Your task to perform on an android device: Open privacy settings Image 0: 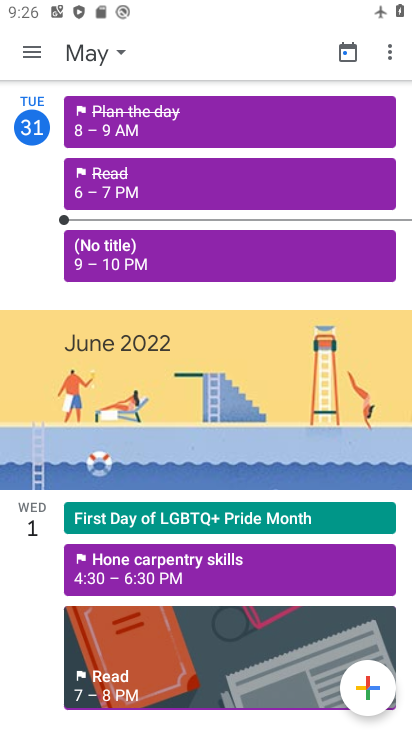
Step 0: press home button
Your task to perform on an android device: Open privacy settings Image 1: 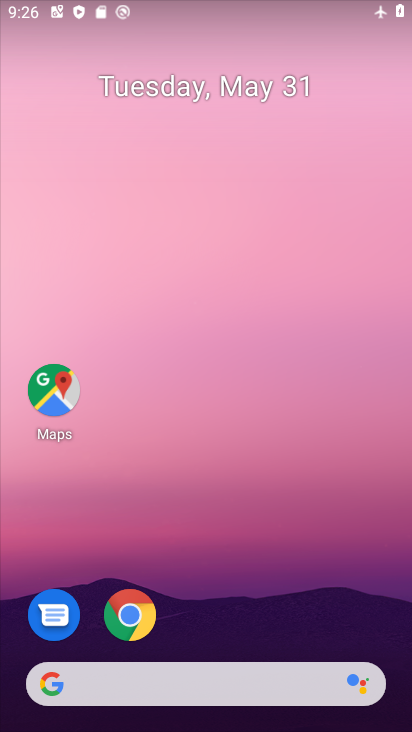
Step 1: drag from (371, 638) to (341, 62)
Your task to perform on an android device: Open privacy settings Image 2: 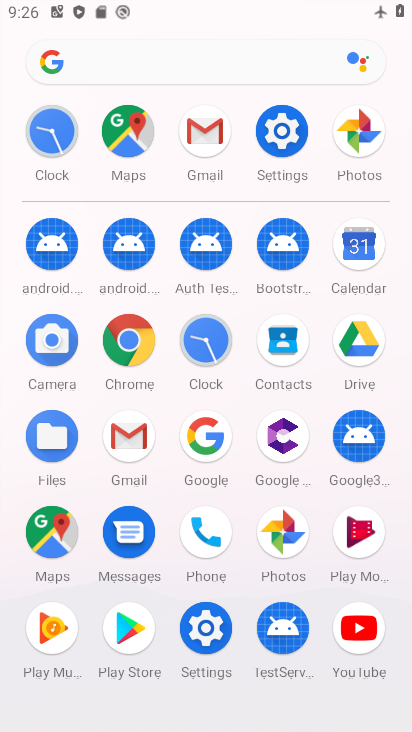
Step 2: click (205, 626)
Your task to perform on an android device: Open privacy settings Image 3: 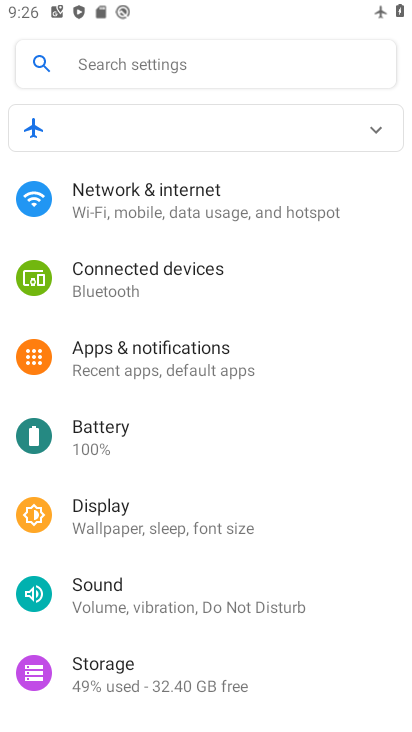
Step 3: drag from (326, 642) to (312, 207)
Your task to perform on an android device: Open privacy settings Image 4: 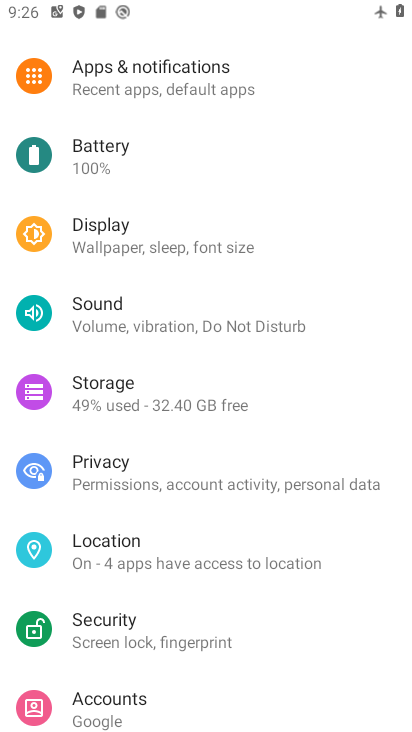
Step 4: click (108, 466)
Your task to perform on an android device: Open privacy settings Image 5: 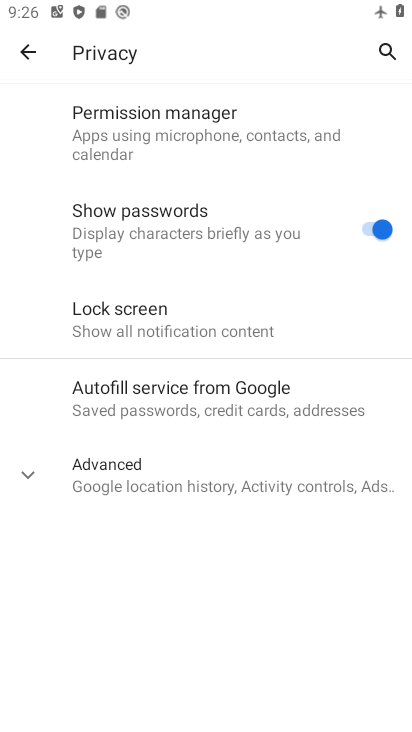
Step 5: click (31, 468)
Your task to perform on an android device: Open privacy settings Image 6: 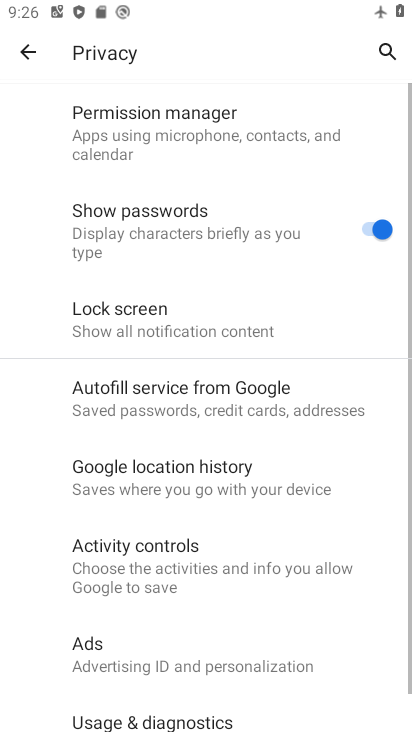
Step 6: task complete